Your task to perform on an android device: Search for Mexican restaurants on Maps Image 0: 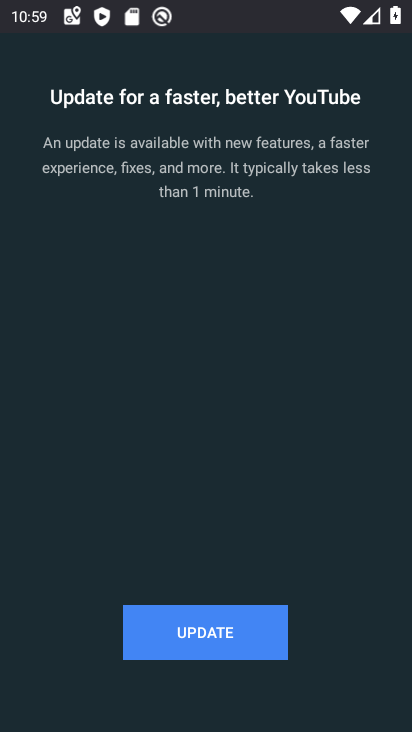
Step 0: press home button
Your task to perform on an android device: Search for Mexican restaurants on Maps Image 1: 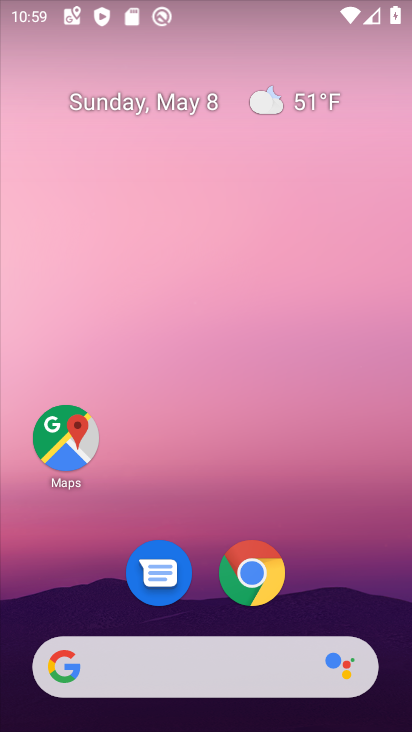
Step 1: drag from (216, 632) to (167, 276)
Your task to perform on an android device: Search for Mexican restaurants on Maps Image 2: 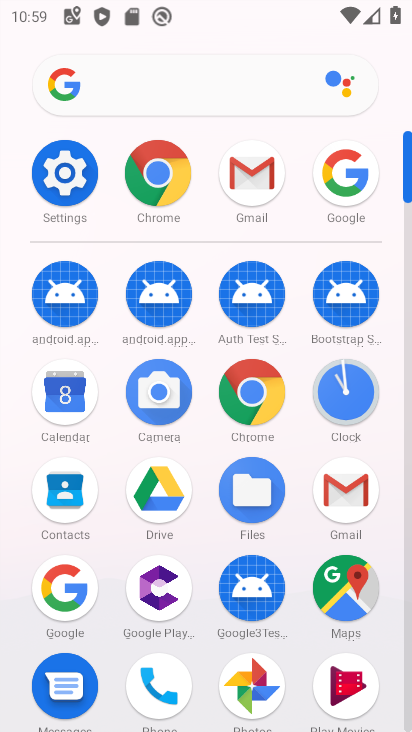
Step 2: click (353, 606)
Your task to perform on an android device: Search for Mexican restaurants on Maps Image 3: 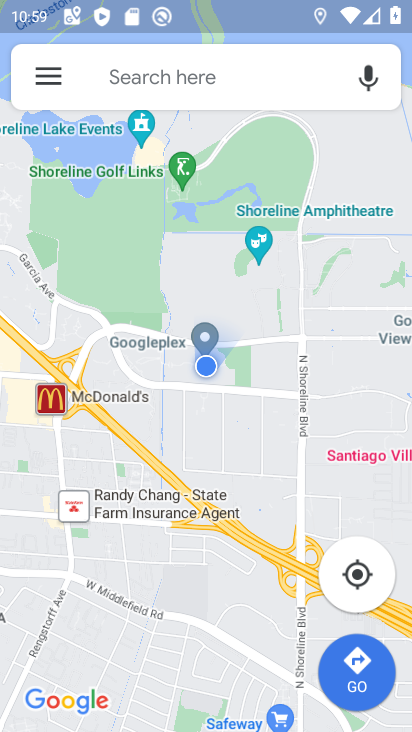
Step 3: click (168, 69)
Your task to perform on an android device: Search for Mexican restaurants on Maps Image 4: 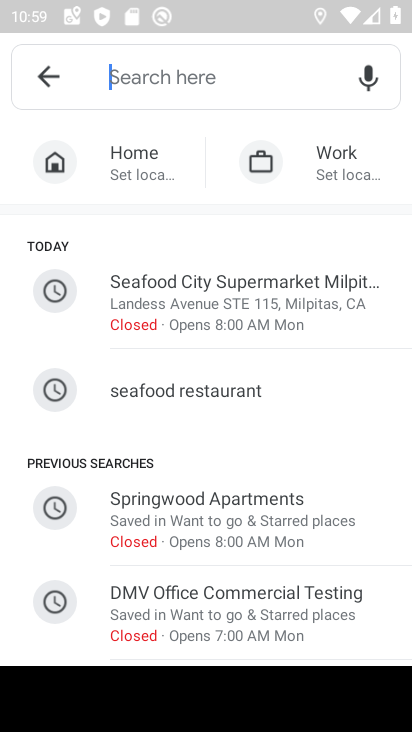
Step 4: type "mexican restaurants"
Your task to perform on an android device: Search for Mexican restaurants on Maps Image 5: 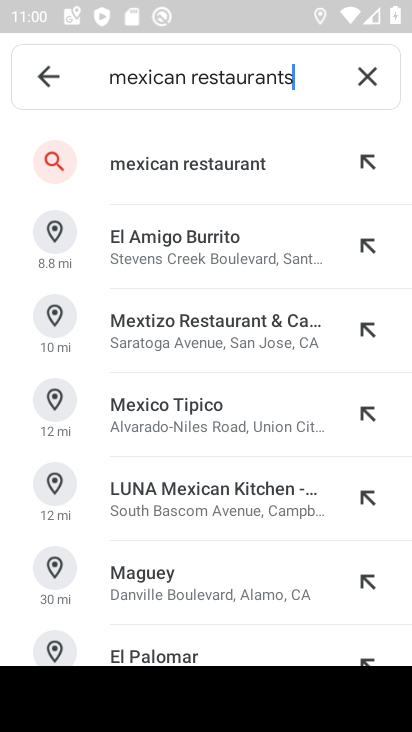
Step 5: click (214, 156)
Your task to perform on an android device: Search for Mexican restaurants on Maps Image 6: 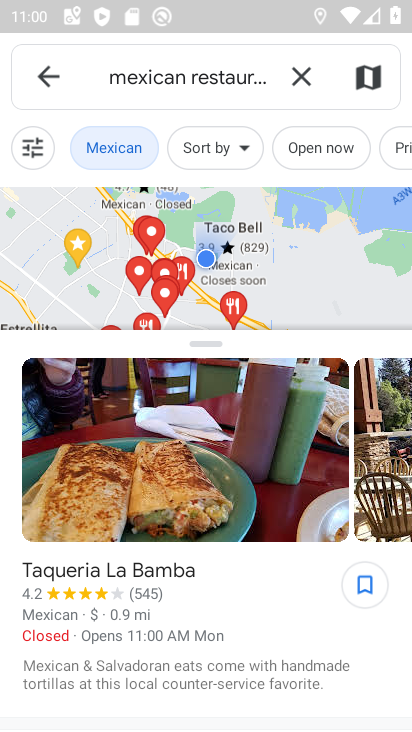
Step 6: task complete